Your task to perform on an android device: What's the weather? Image 0: 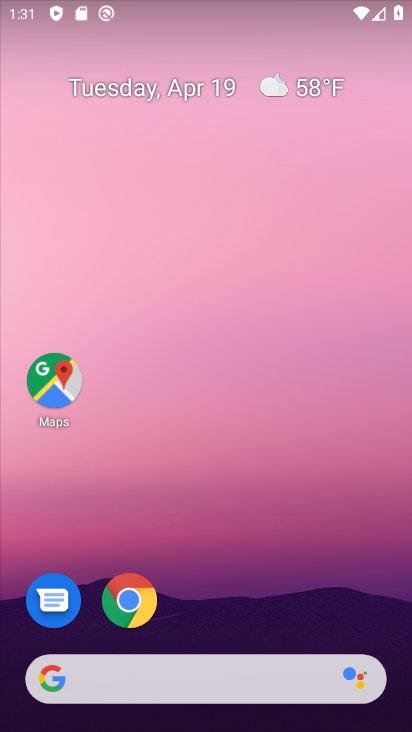
Step 0: drag from (69, 299) to (342, 267)
Your task to perform on an android device: What's the weather? Image 1: 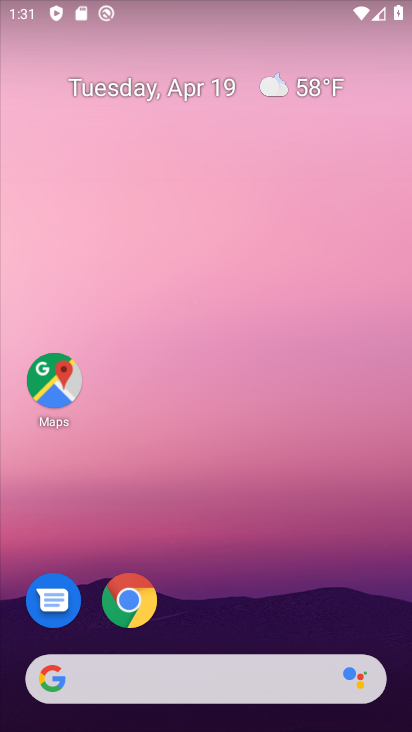
Step 1: drag from (24, 257) to (209, 238)
Your task to perform on an android device: What's the weather? Image 2: 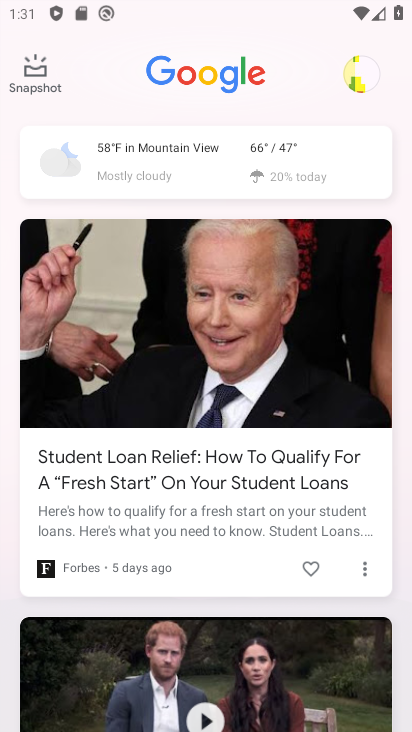
Step 2: click (103, 152)
Your task to perform on an android device: What's the weather? Image 3: 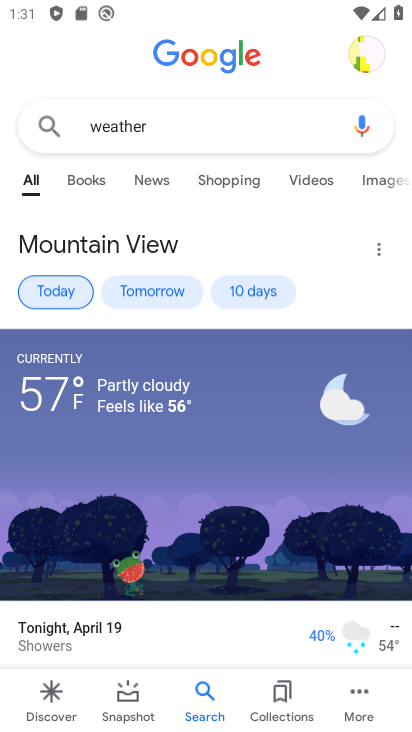
Step 3: task complete